Your task to perform on an android device: open app "Mercado Libre" Image 0: 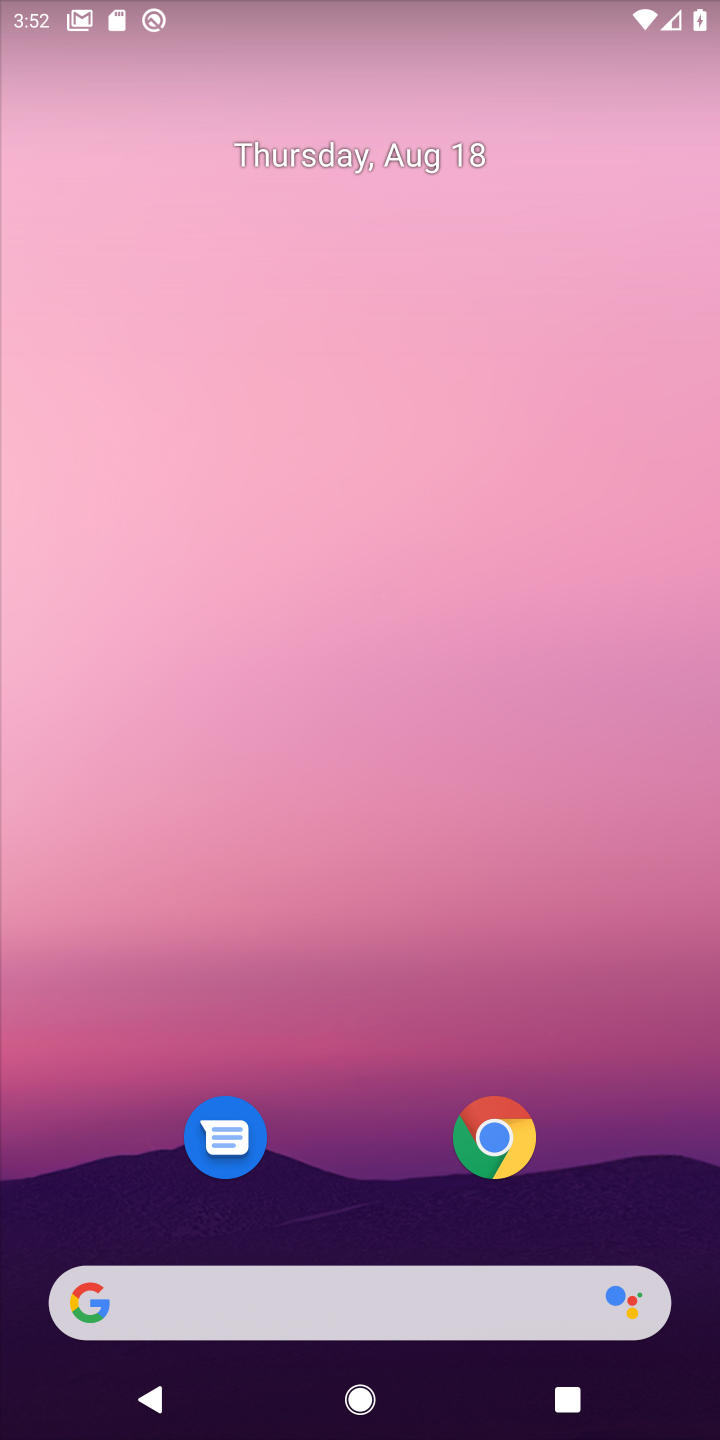
Step 0: drag from (364, 669) to (393, 167)
Your task to perform on an android device: open app "Mercado Libre" Image 1: 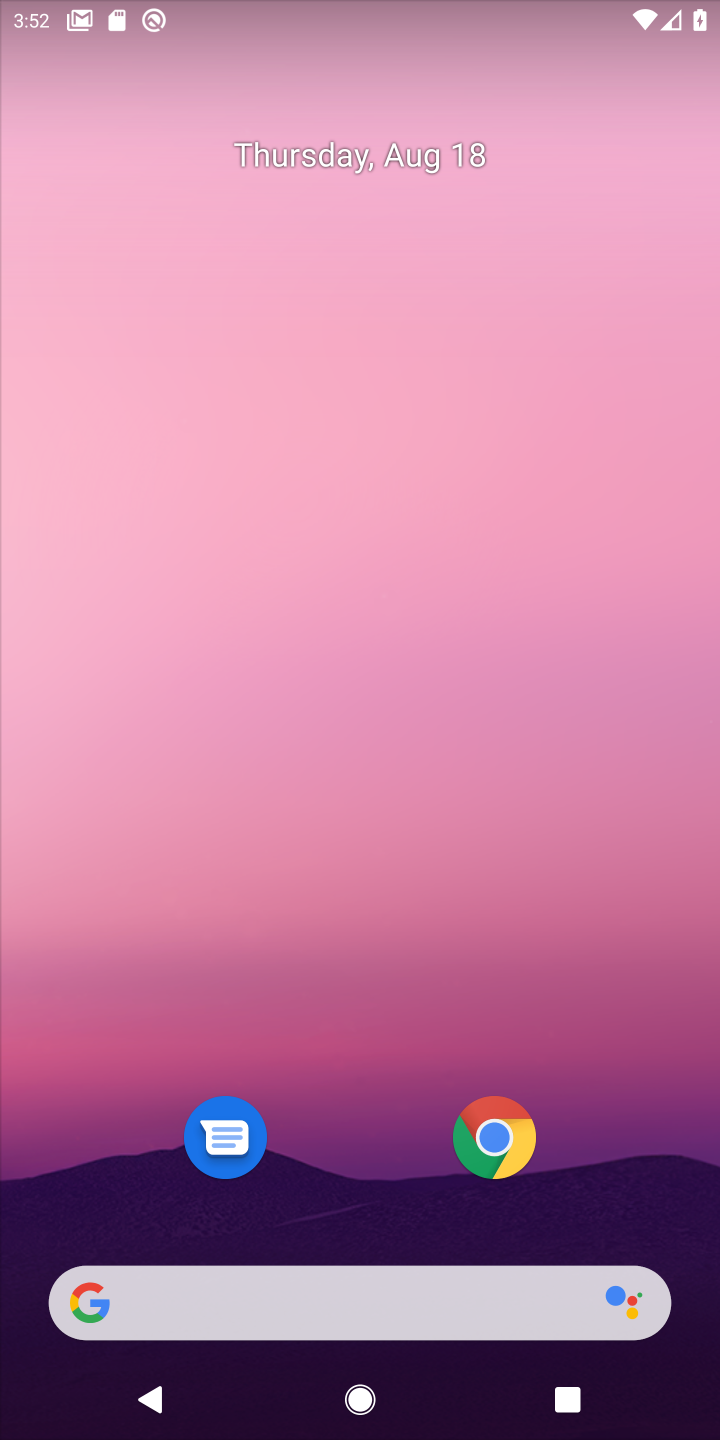
Step 1: drag from (330, 1038) to (282, 243)
Your task to perform on an android device: open app "Mercado Libre" Image 2: 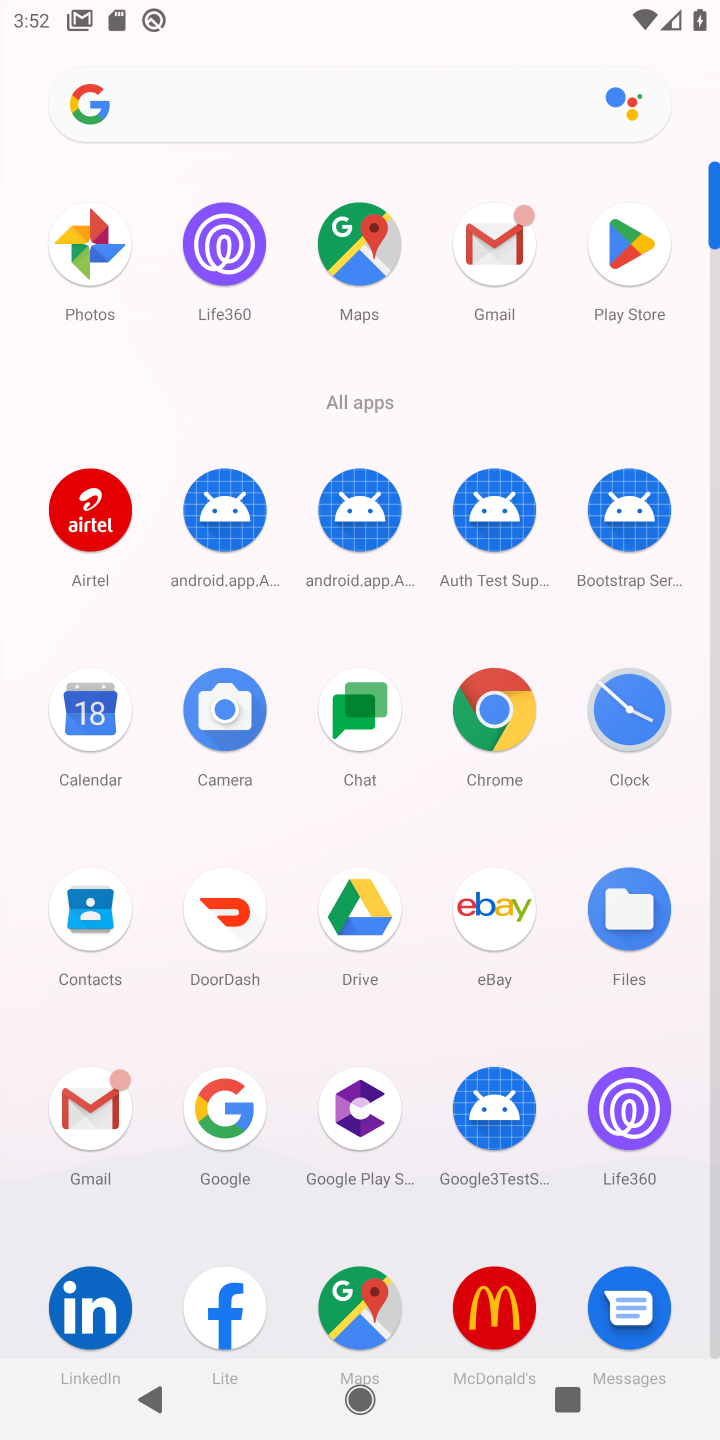
Step 2: click (627, 270)
Your task to perform on an android device: open app "Mercado Libre" Image 3: 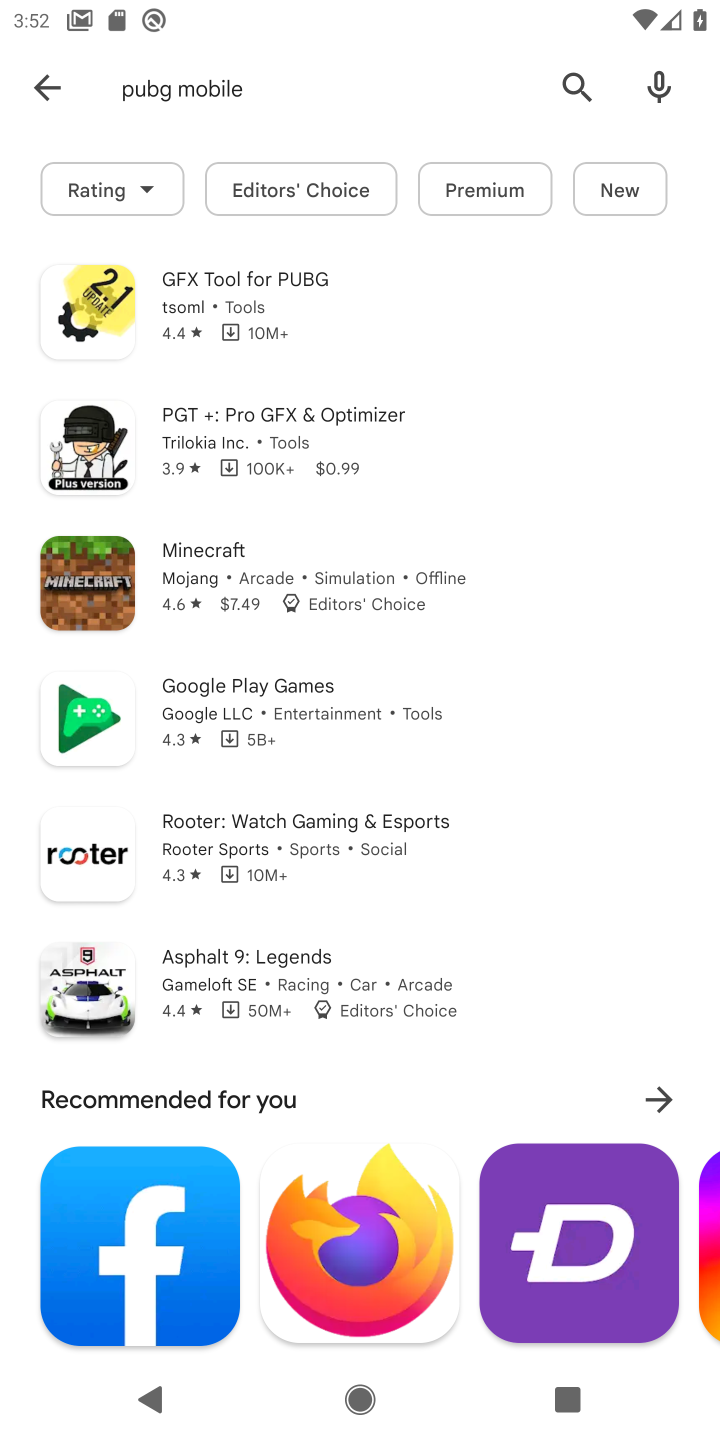
Step 3: click (36, 92)
Your task to perform on an android device: open app "Mercado Libre" Image 4: 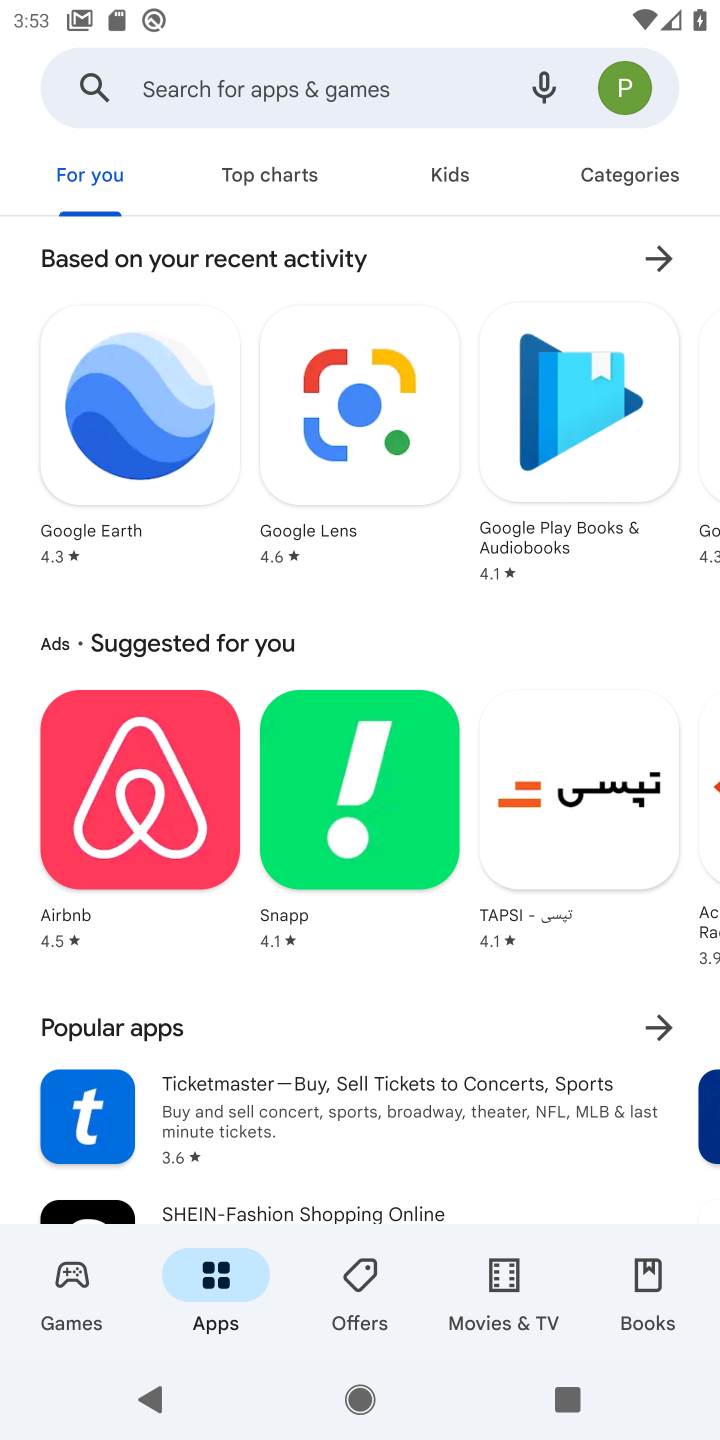
Step 4: click (335, 91)
Your task to perform on an android device: open app "Mercado Libre" Image 5: 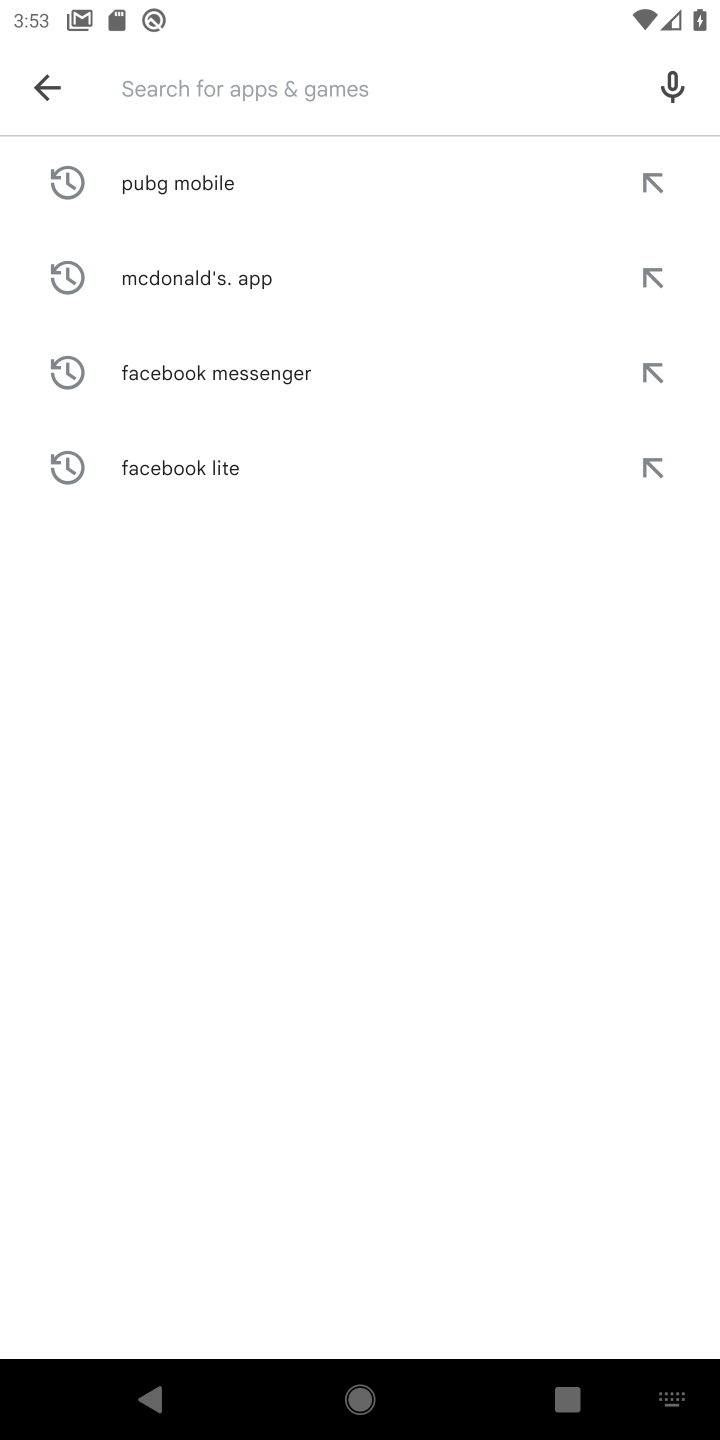
Step 5: type "Mercado Libre"
Your task to perform on an android device: open app "Mercado Libre" Image 6: 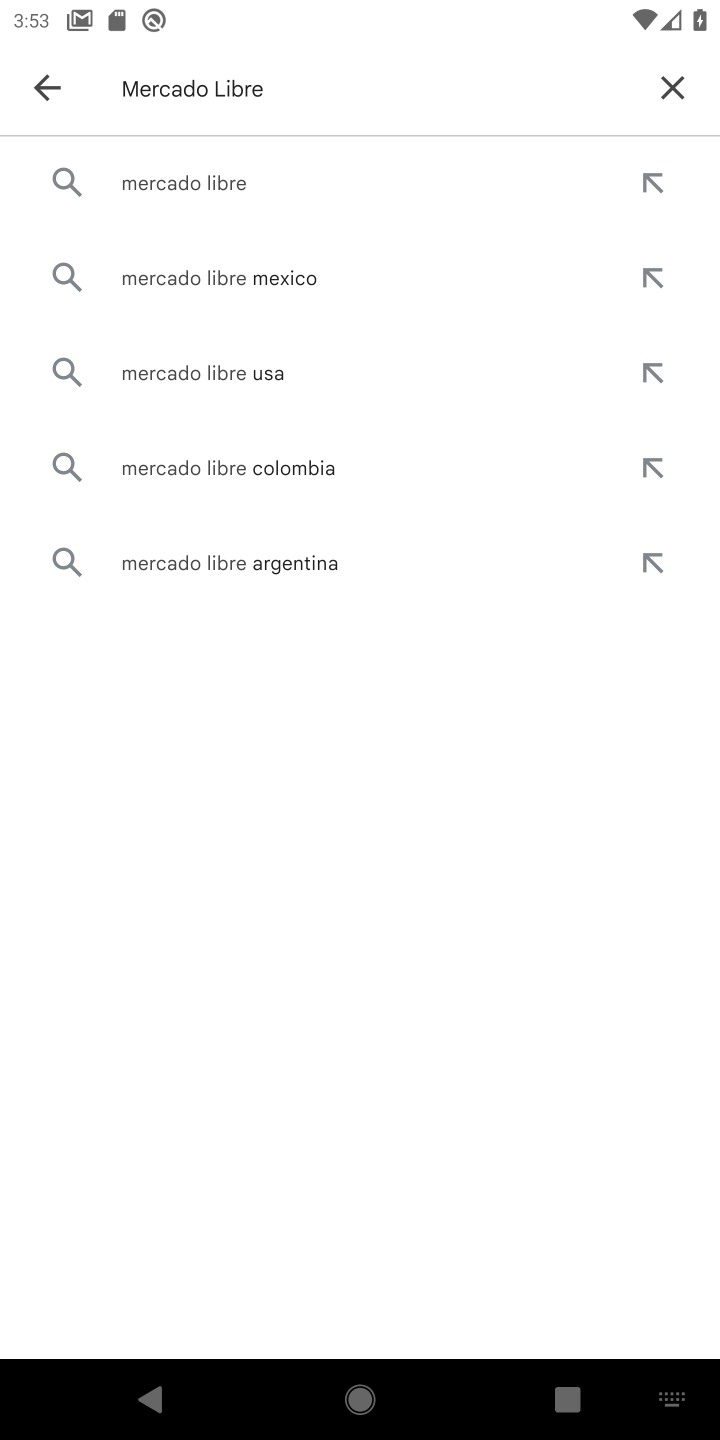
Step 6: click (192, 197)
Your task to perform on an android device: open app "Mercado Libre" Image 7: 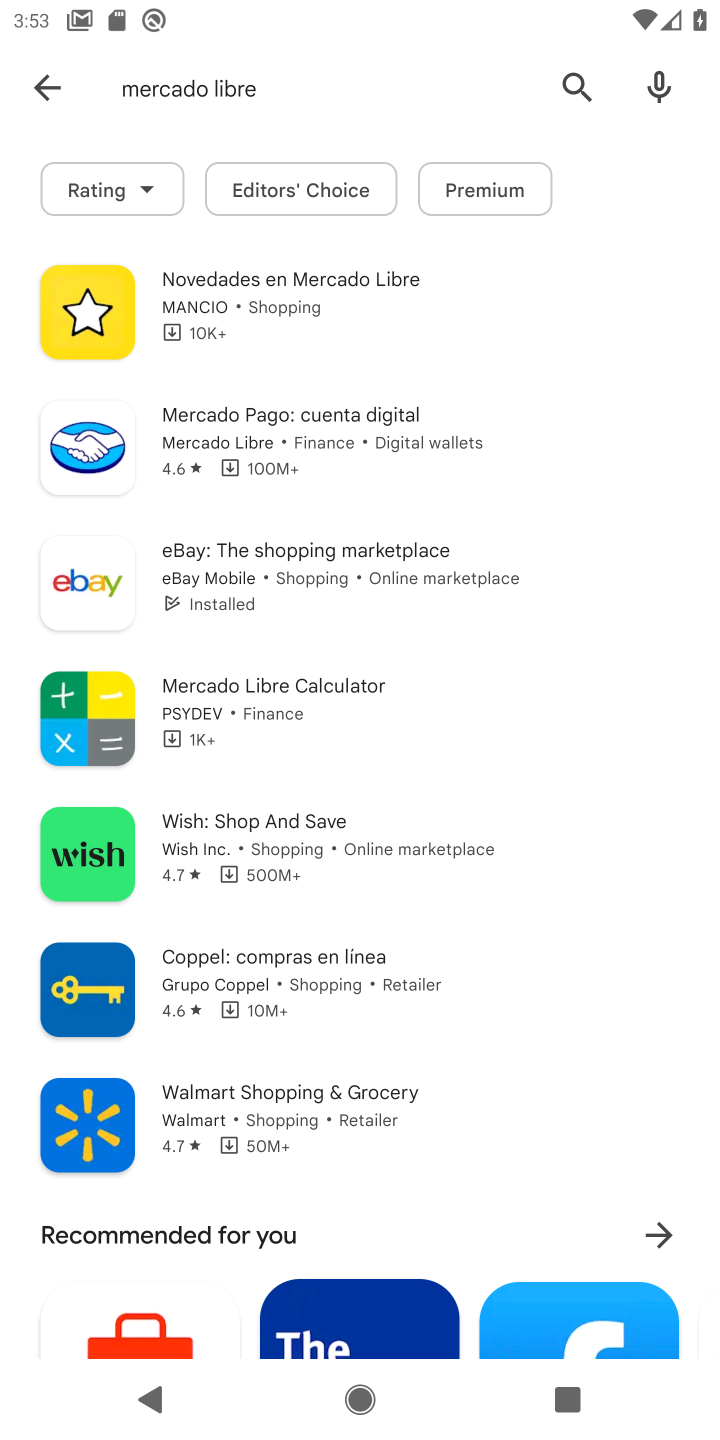
Step 7: click (219, 712)
Your task to perform on an android device: open app "Mercado Libre" Image 8: 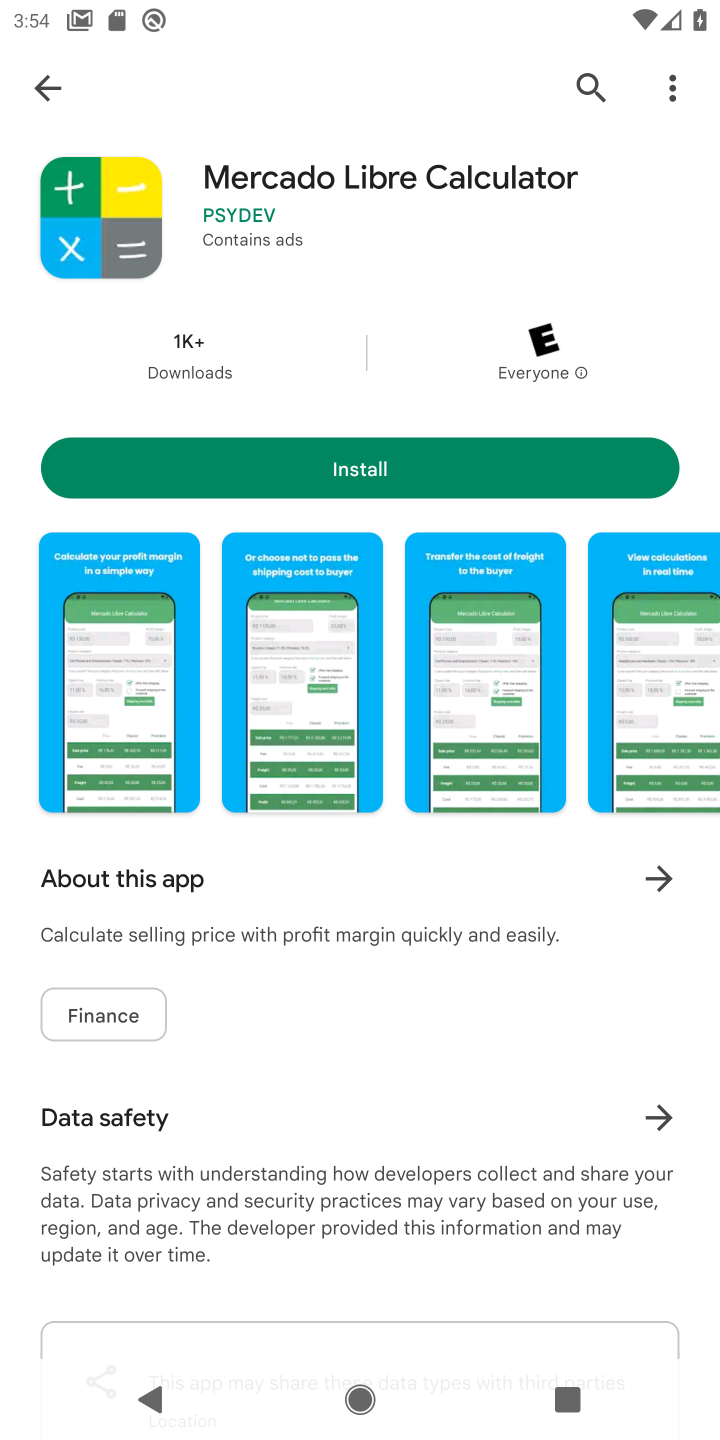
Step 8: click (363, 471)
Your task to perform on an android device: open app "Mercado Libre" Image 9: 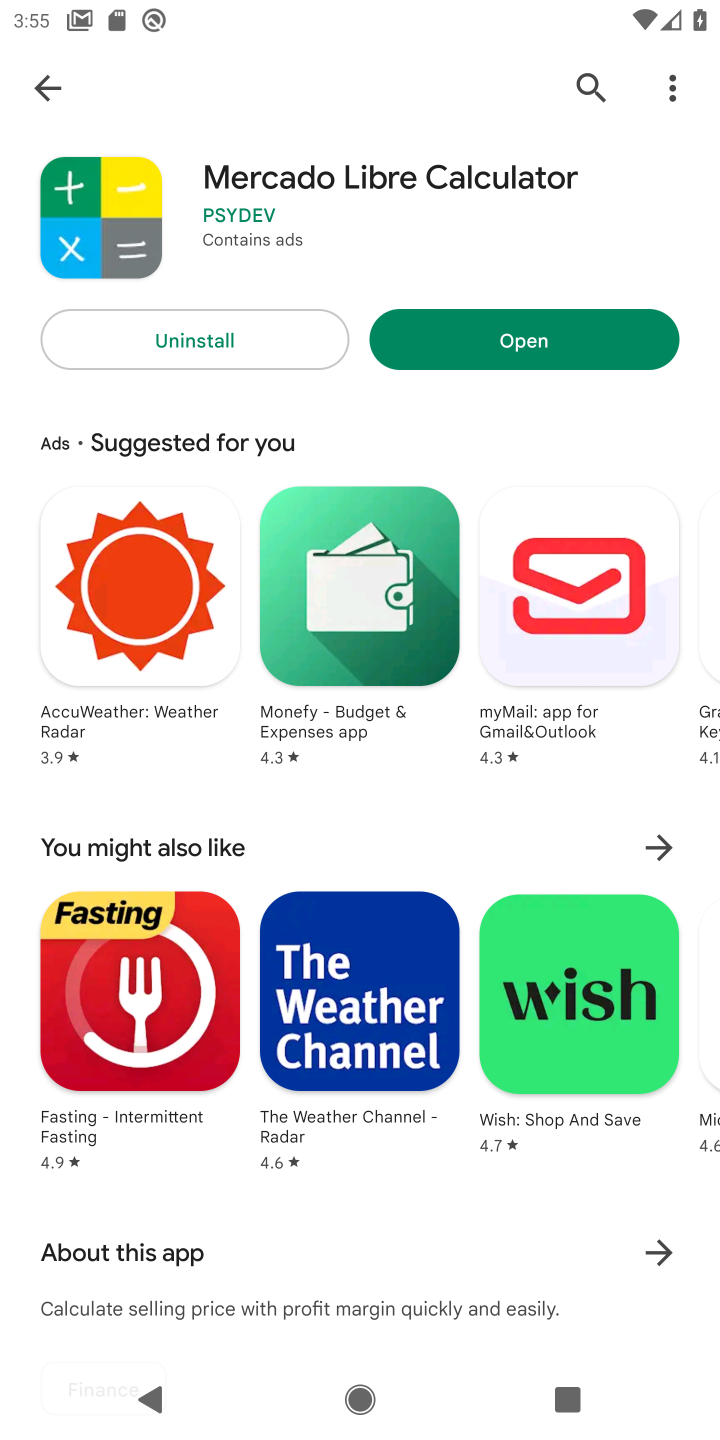
Step 9: click (477, 327)
Your task to perform on an android device: open app "Mercado Libre" Image 10: 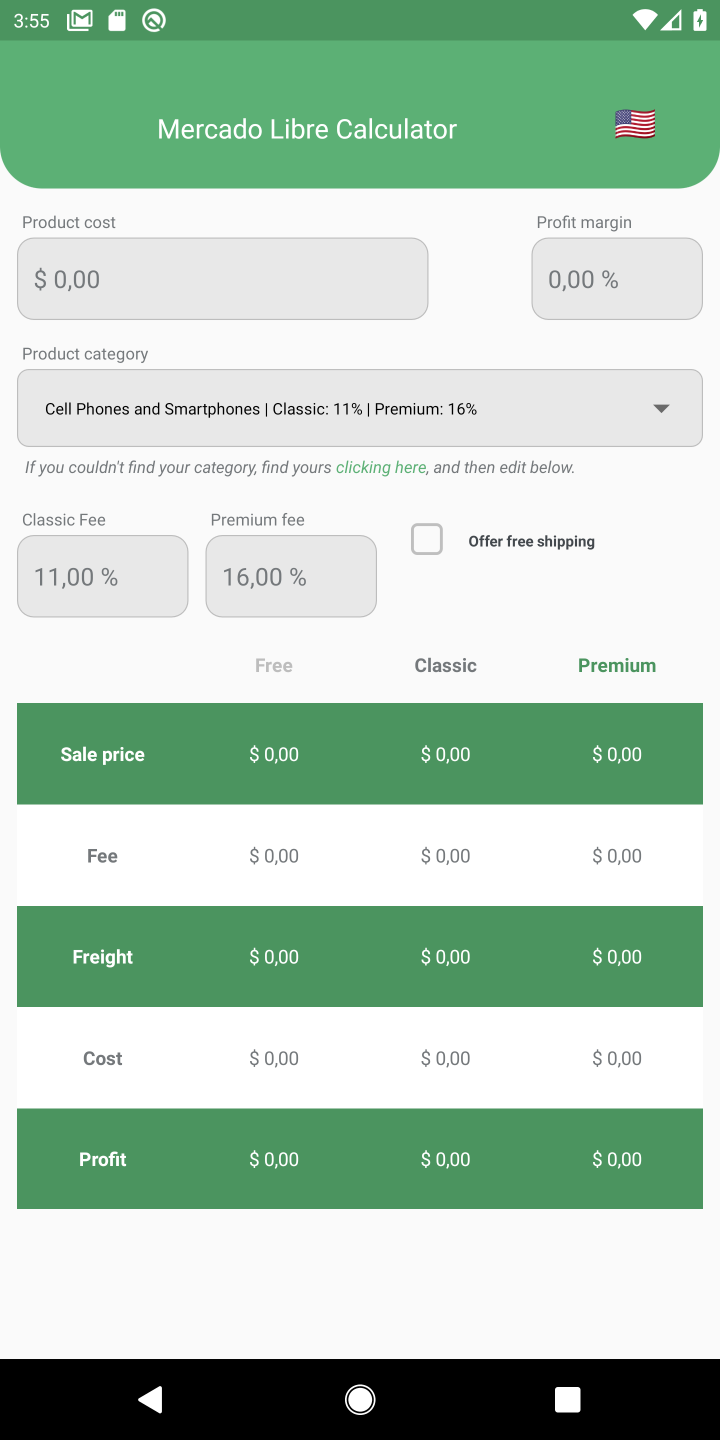
Step 10: task complete